Your task to perform on an android device: Add logitech g910 to the cart on newegg.com, then select checkout. Image 0: 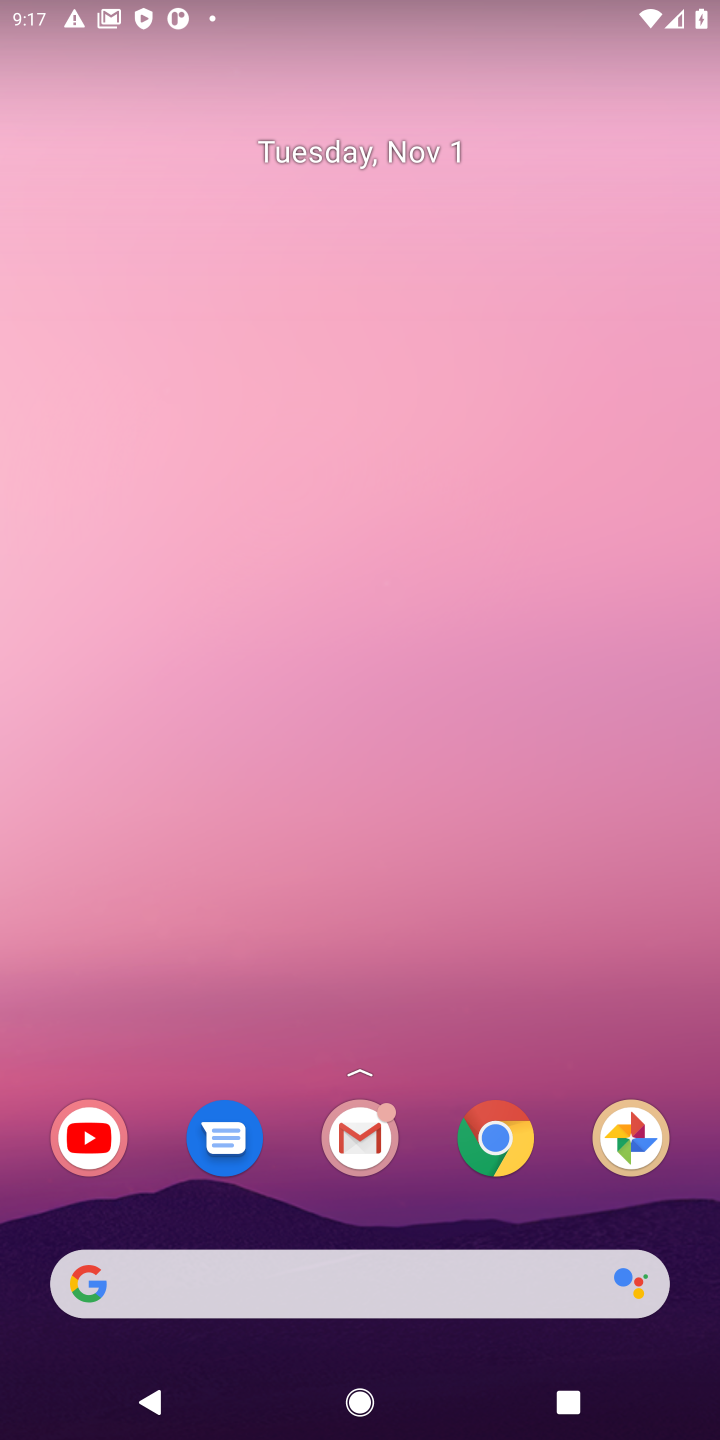
Step 0: click (507, 1147)
Your task to perform on an android device: Add logitech g910 to the cart on newegg.com, then select checkout. Image 1: 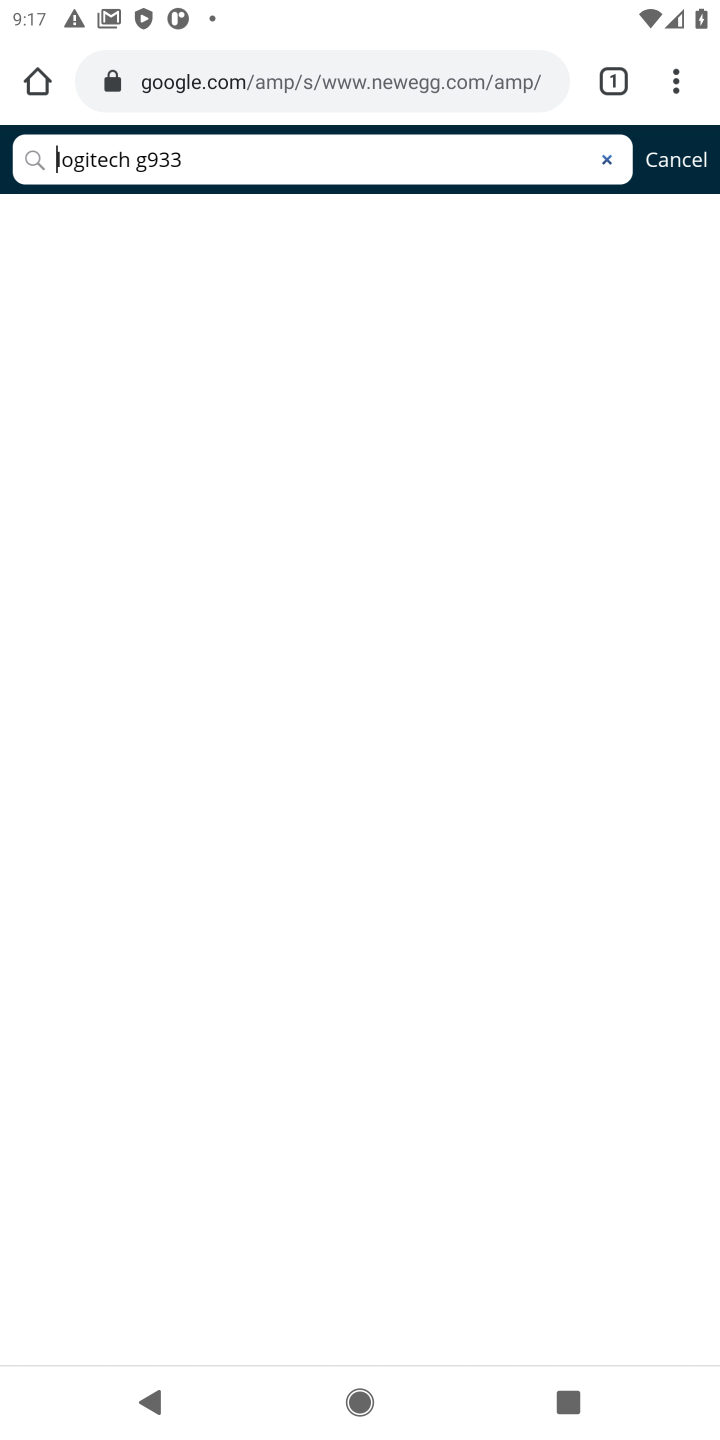
Step 1: click (246, 75)
Your task to perform on an android device: Add logitech g910 to the cart on newegg.com, then select checkout. Image 2: 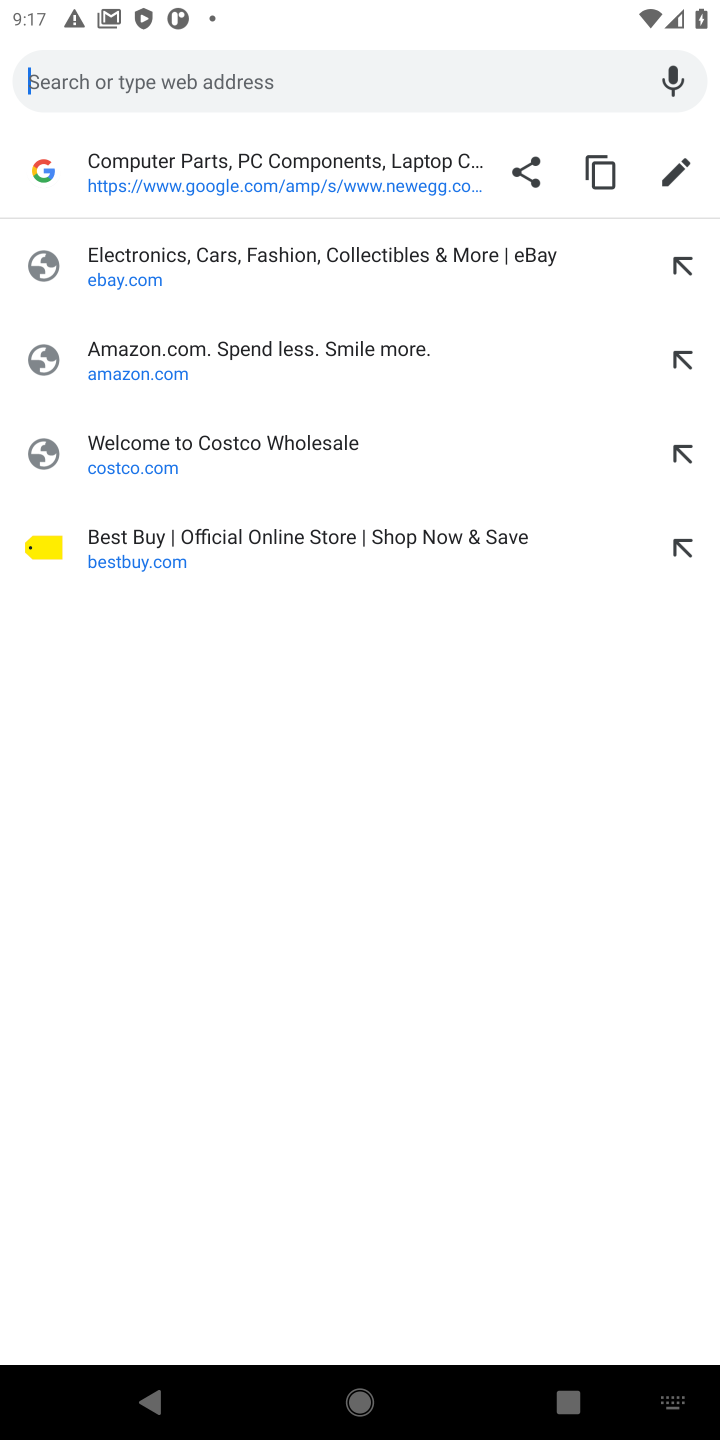
Step 2: type "newegg.com"
Your task to perform on an android device: Add logitech g910 to the cart on newegg.com, then select checkout. Image 3: 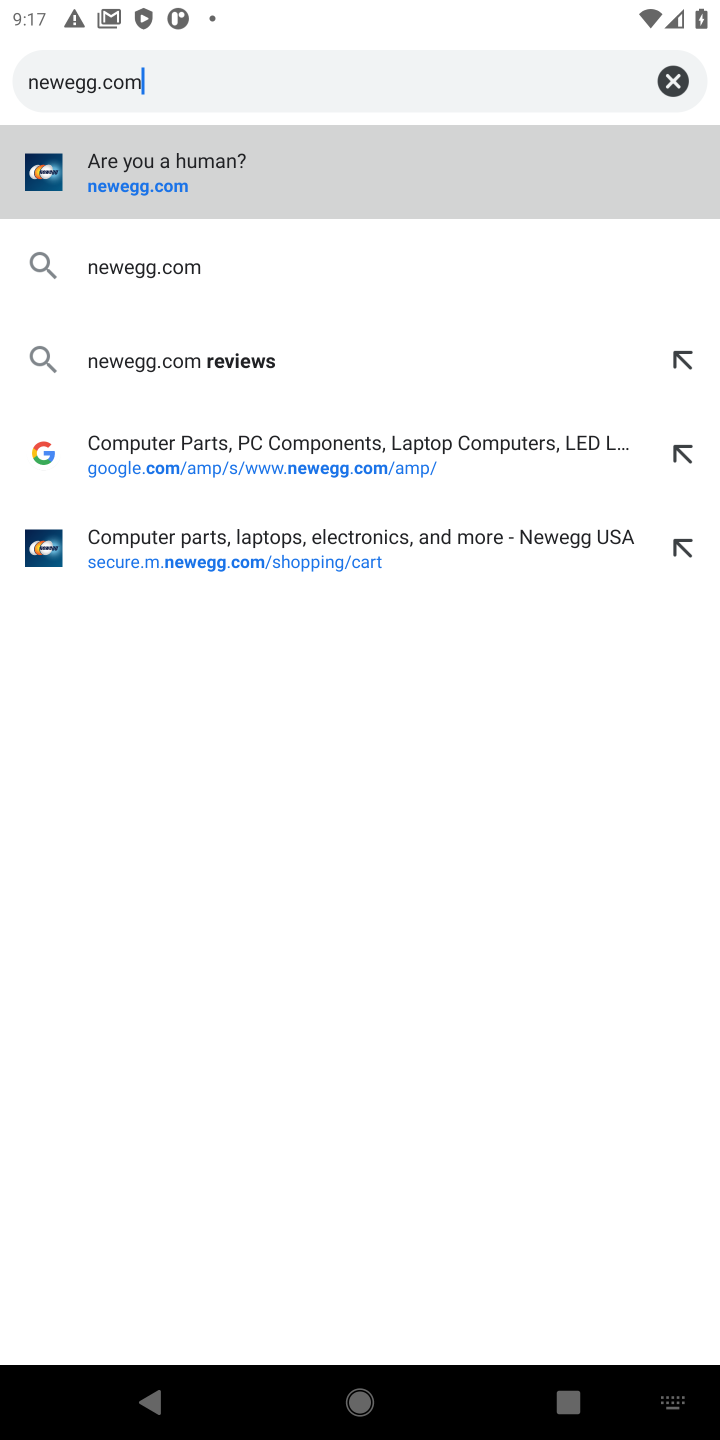
Step 3: click (133, 277)
Your task to perform on an android device: Add logitech g910 to the cart on newegg.com, then select checkout. Image 4: 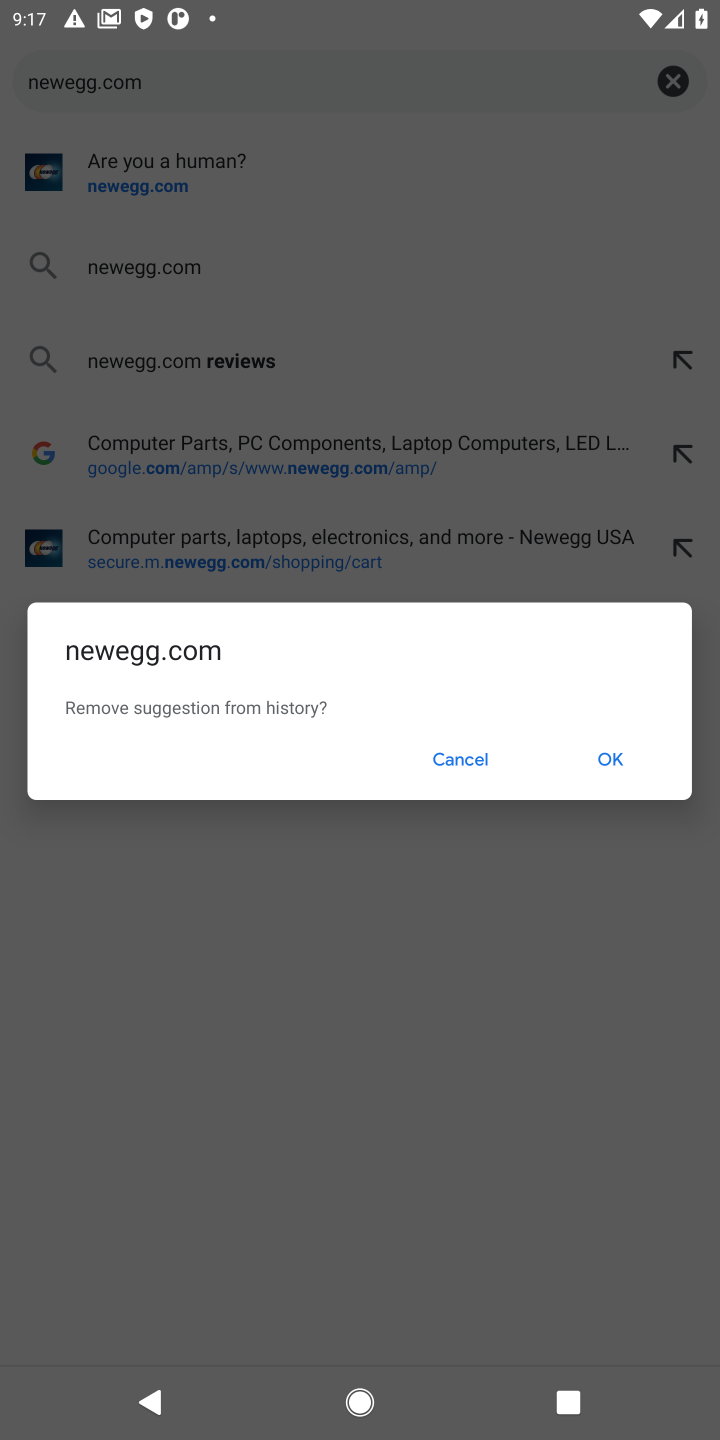
Step 4: click (462, 765)
Your task to perform on an android device: Add logitech g910 to the cart on newegg.com, then select checkout. Image 5: 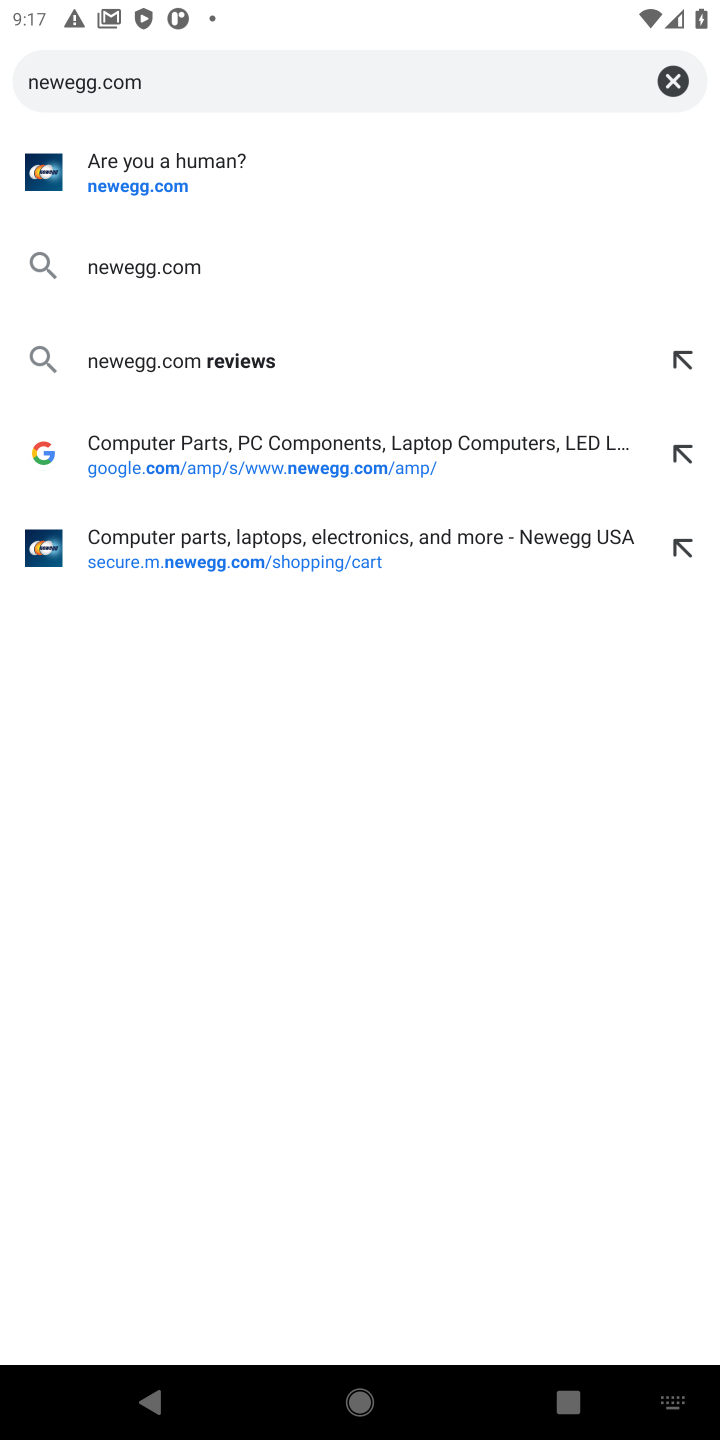
Step 5: click (145, 278)
Your task to perform on an android device: Add logitech g910 to the cart on newegg.com, then select checkout. Image 6: 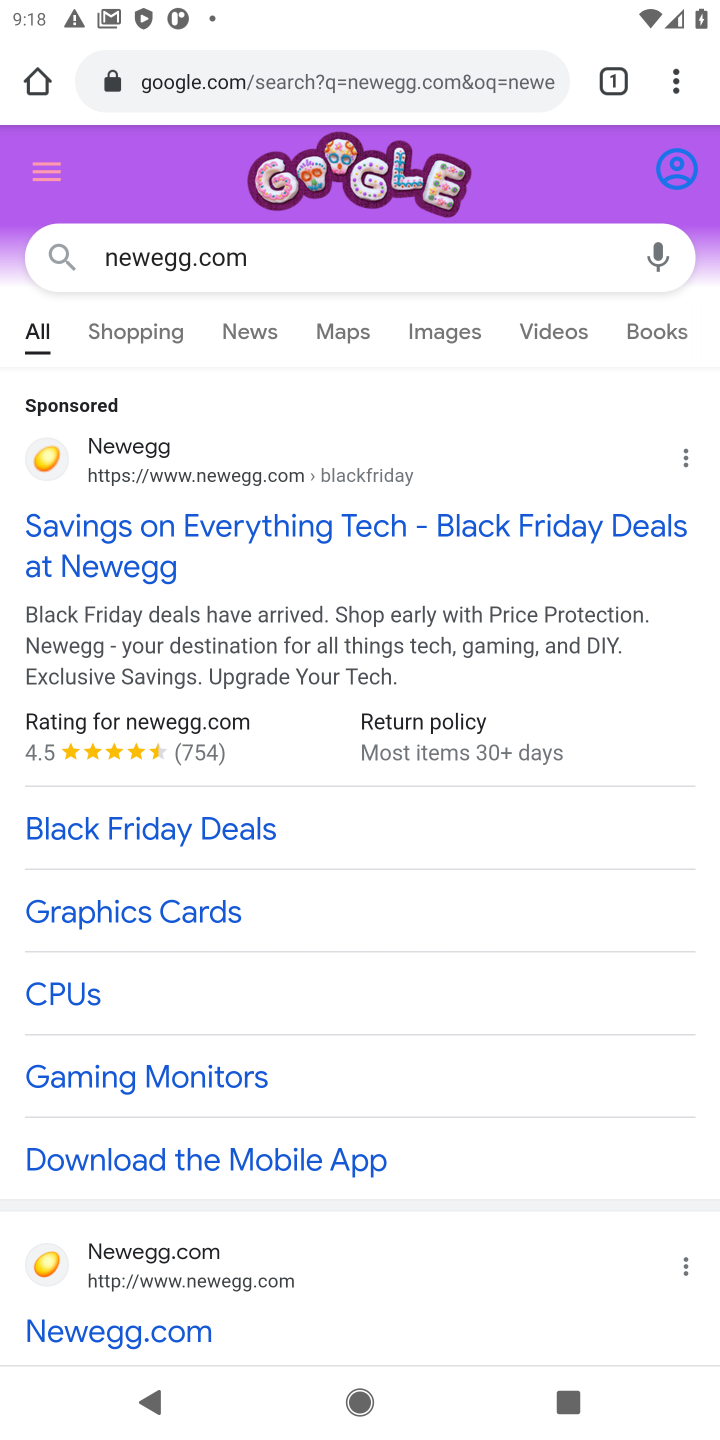
Step 6: click (114, 1286)
Your task to perform on an android device: Add logitech g910 to the cart on newegg.com, then select checkout. Image 7: 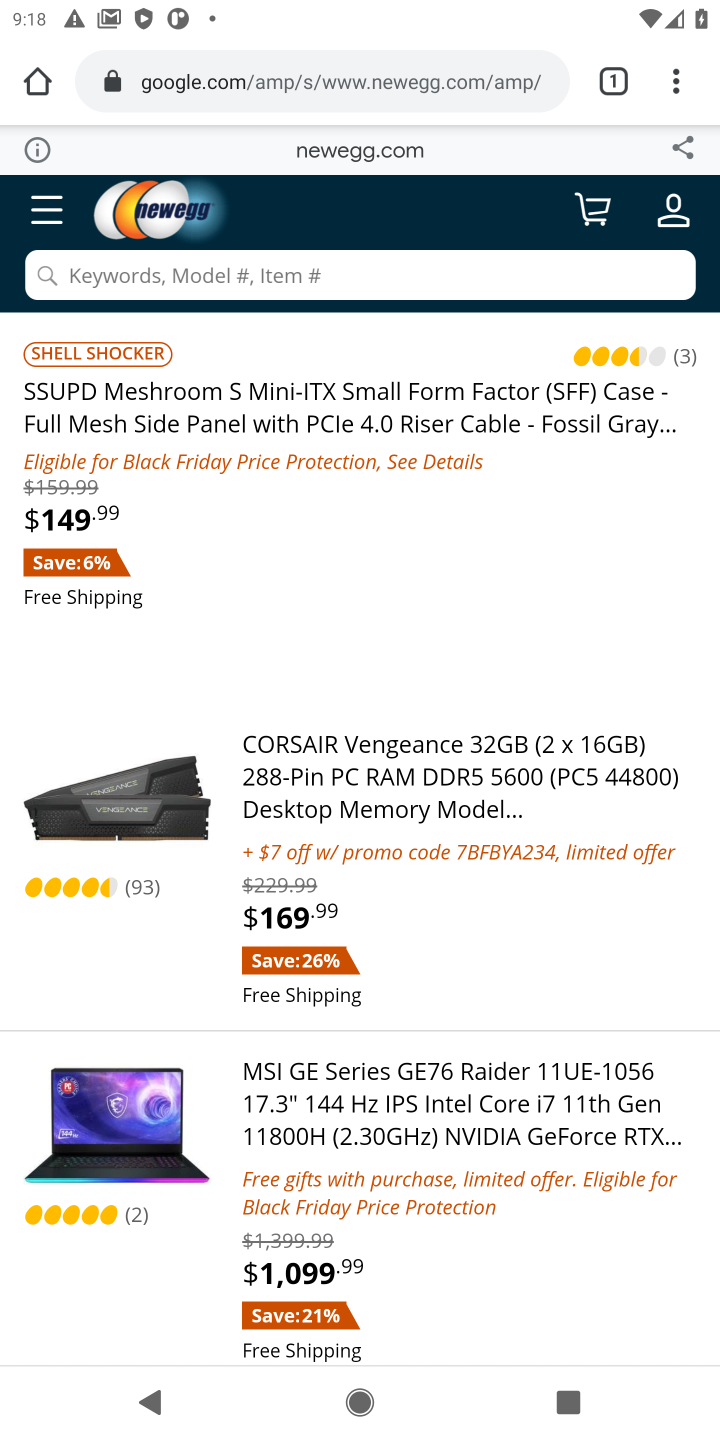
Step 7: click (287, 286)
Your task to perform on an android device: Add logitech g910 to the cart on newegg.com, then select checkout. Image 8: 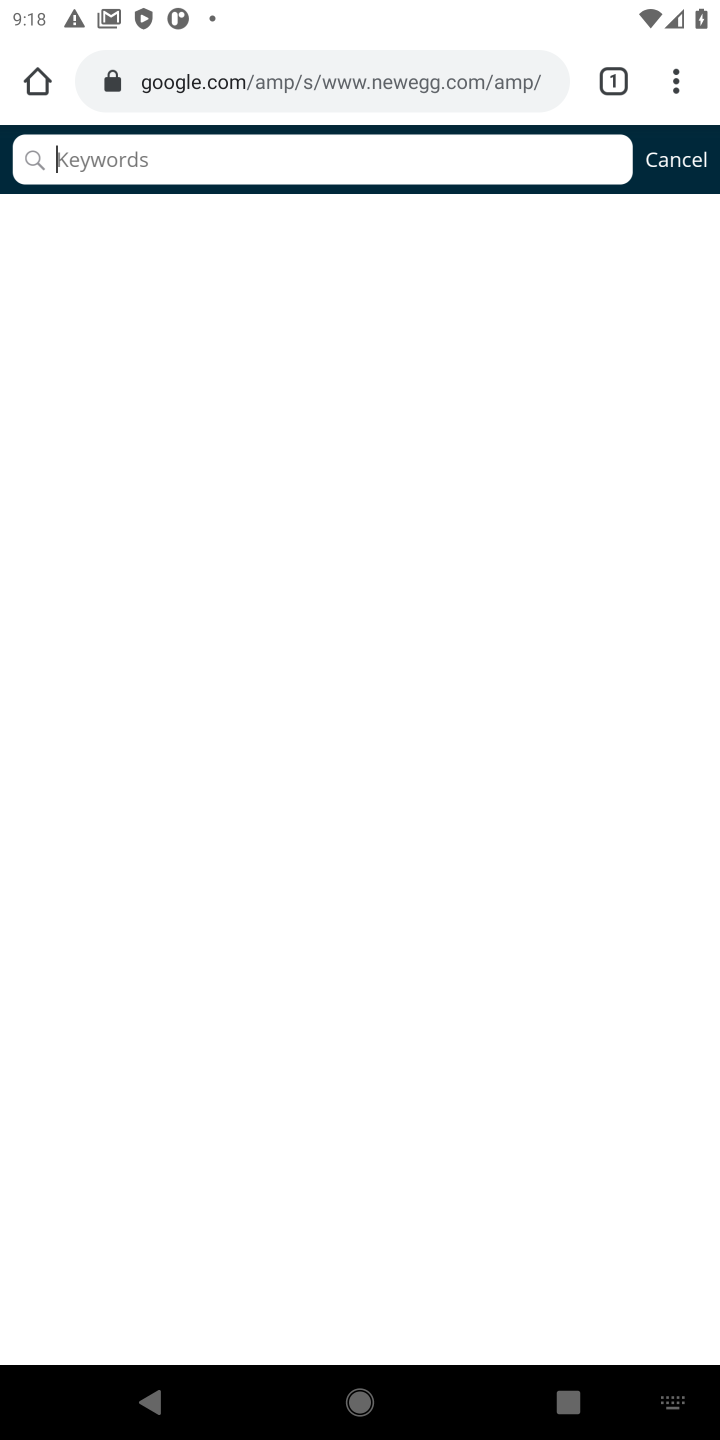
Step 8: type "logitech g910"
Your task to perform on an android device: Add logitech g910 to the cart on newegg.com, then select checkout. Image 9: 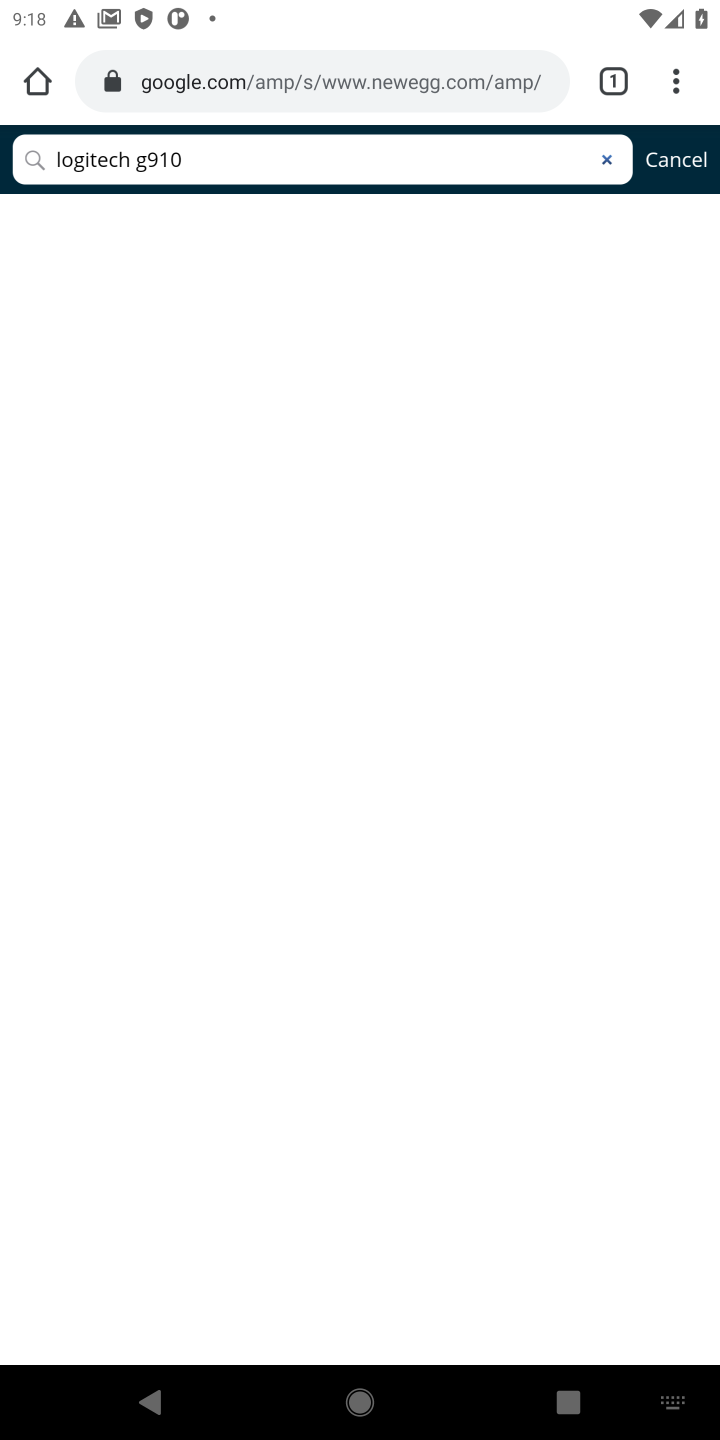
Step 9: click (28, 154)
Your task to perform on an android device: Add logitech g910 to the cart on newegg.com, then select checkout. Image 10: 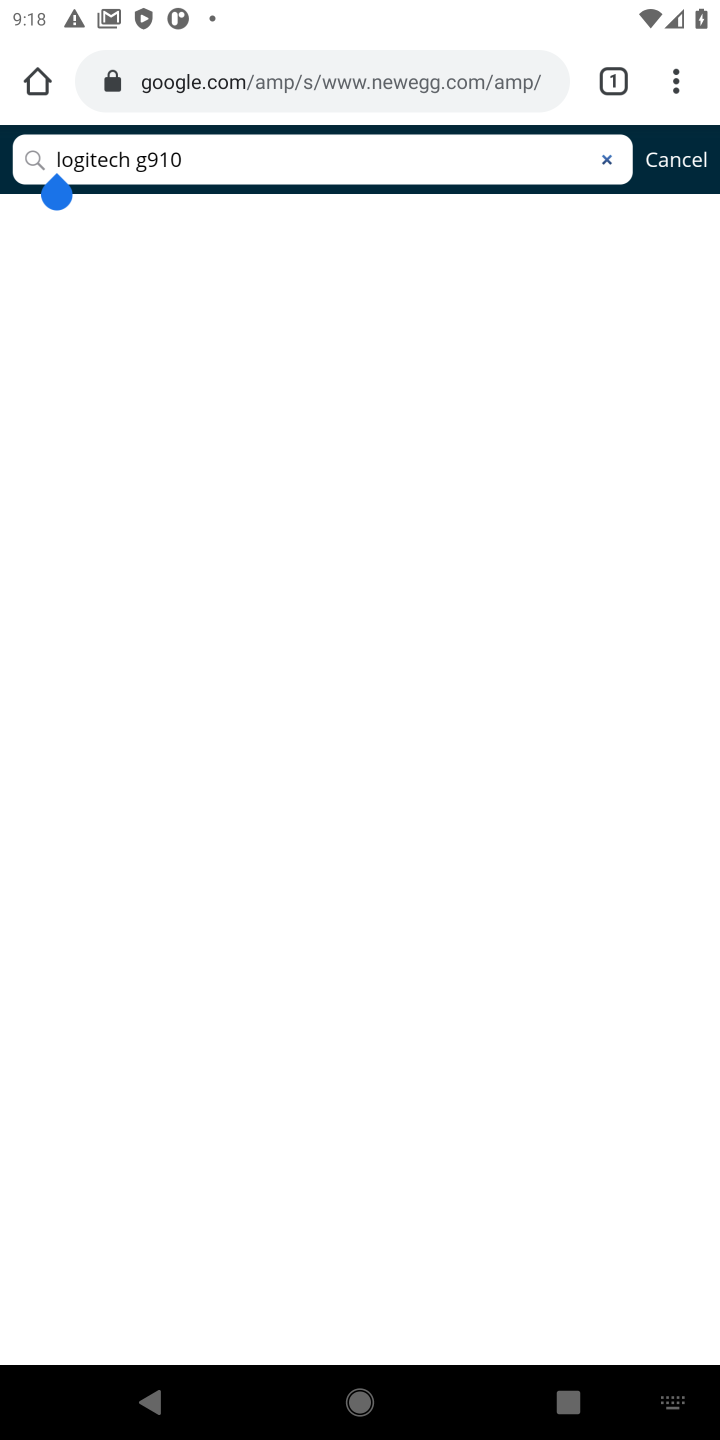
Step 10: task complete